Your task to perform on an android device: Open Google Maps and go to "Timeline" Image 0: 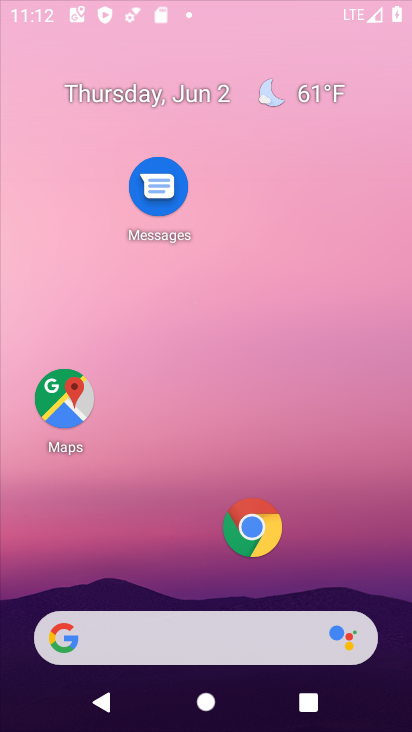
Step 0: press home button
Your task to perform on an android device: Open Google Maps and go to "Timeline" Image 1: 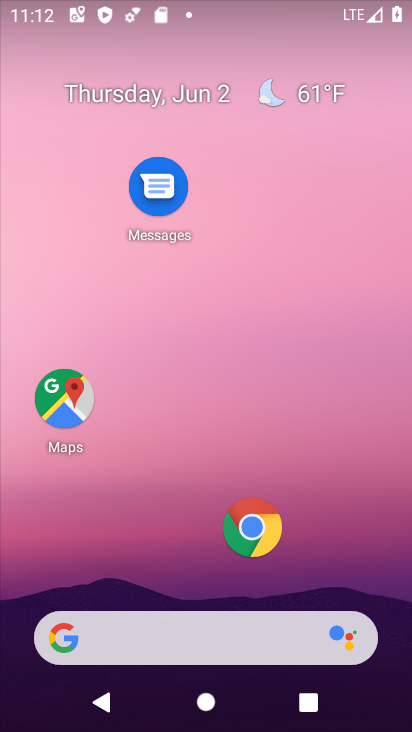
Step 1: click (58, 394)
Your task to perform on an android device: Open Google Maps and go to "Timeline" Image 2: 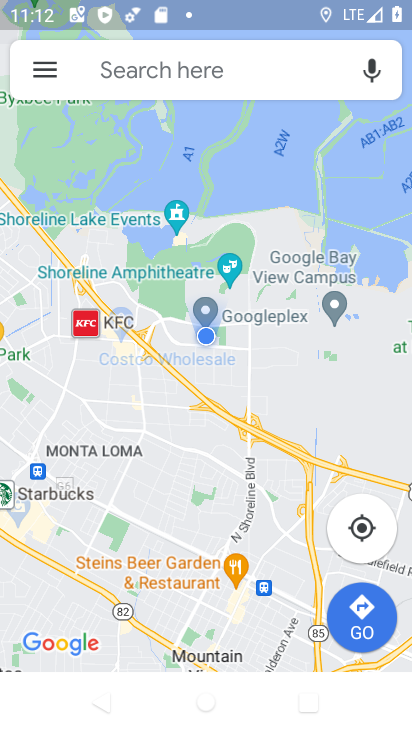
Step 2: click (63, 77)
Your task to perform on an android device: Open Google Maps and go to "Timeline" Image 3: 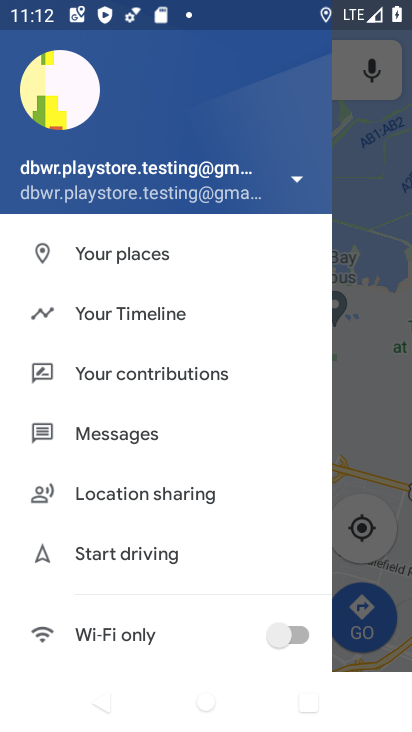
Step 3: click (190, 308)
Your task to perform on an android device: Open Google Maps and go to "Timeline" Image 4: 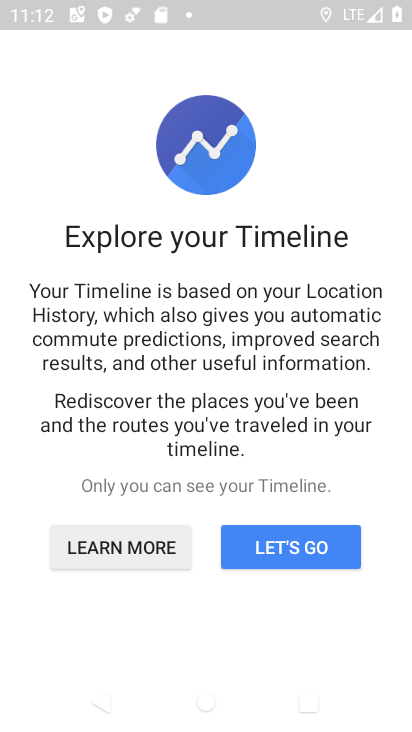
Step 4: click (295, 541)
Your task to perform on an android device: Open Google Maps and go to "Timeline" Image 5: 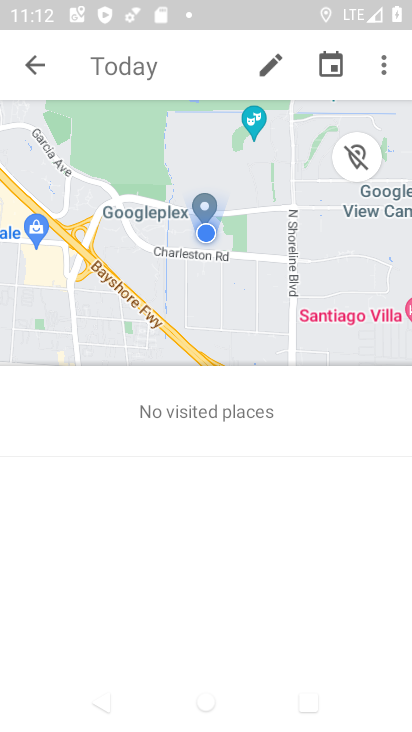
Step 5: task complete